Your task to perform on an android device: Open my contact list Image 0: 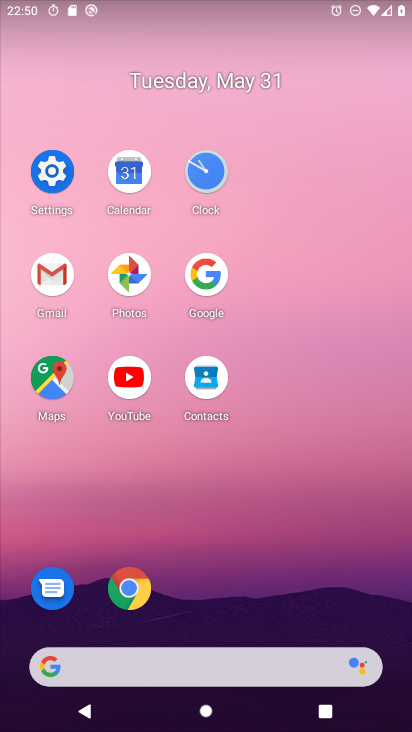
Step 0: click (202, 382)
Your task to perform on an android device: Open my contact list Image 1: 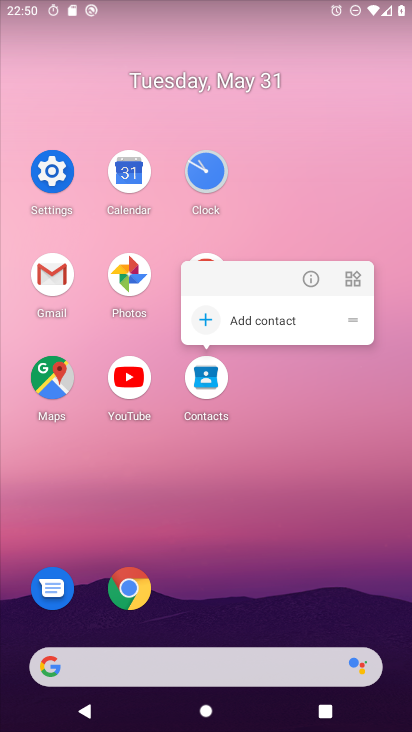
Step 1: click (204, 382)
Your task to perform on an android device: Open my contact list Image 2: 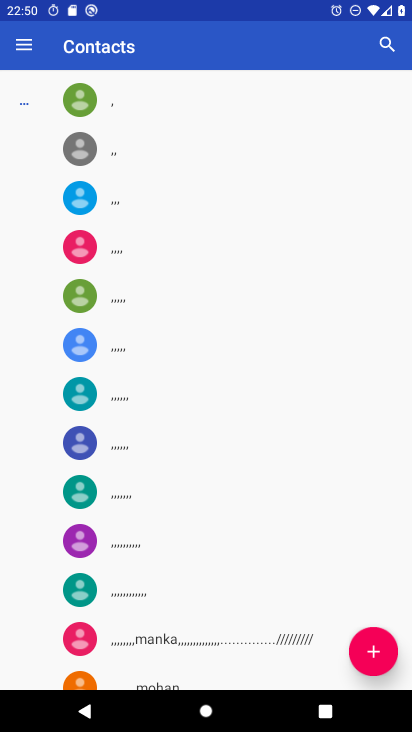
Step 2: task complete